Your task to perform on an android device: turn notification dots on Image 0: 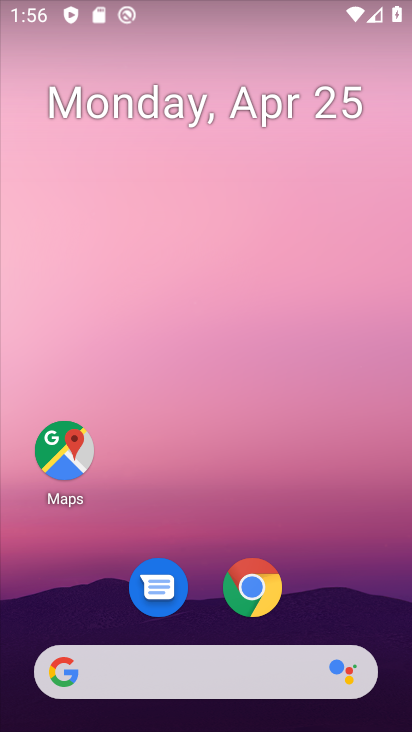
Step 0: drag from (341, 548) to (319, 69)
Your task to perform on an android device: turn notification dots on Image 1: 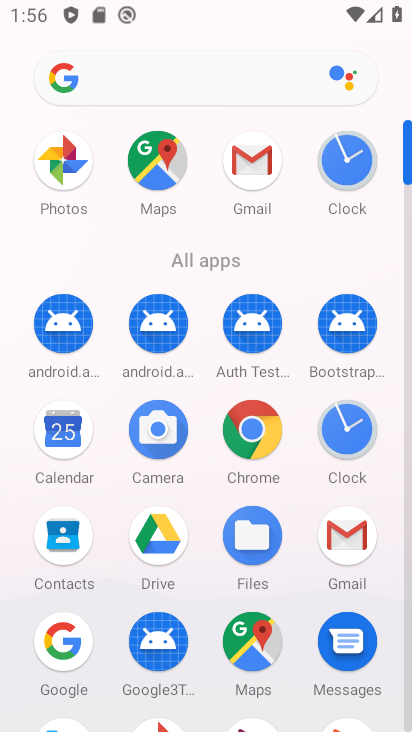
Step 1: drag from (214, 576) to (233, 228)
Your task to perform on an android device: turn notification dots on Image 2: 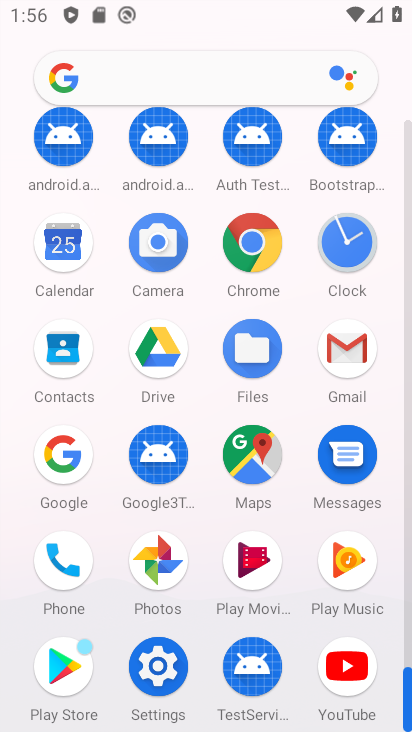
Step 2: click (167, 660)
Your task to perform on an android device: turn notification dots on Image 3: 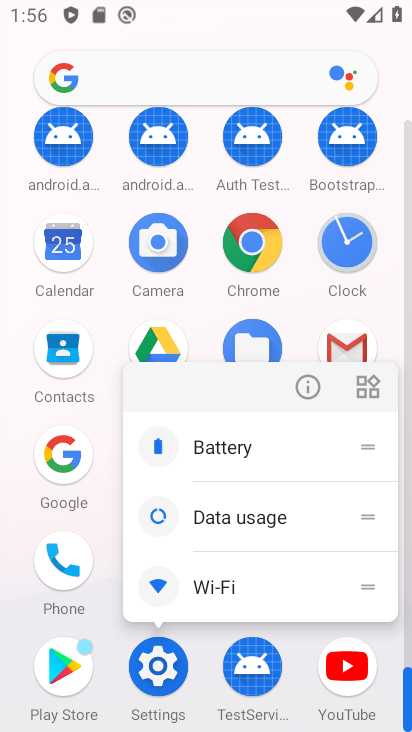
Step 3: click (160, 683)
Your task to perform on an android device: turn notification dots on Image 4: 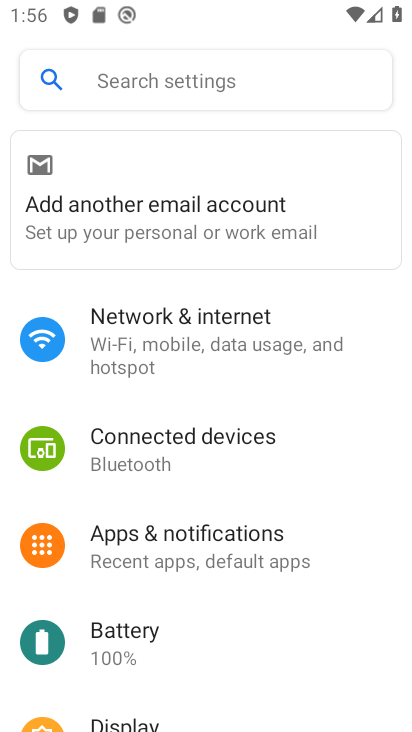
Step 4: click (232, 565)
Your task to perform on an android device: turn notification dots on Image 5: 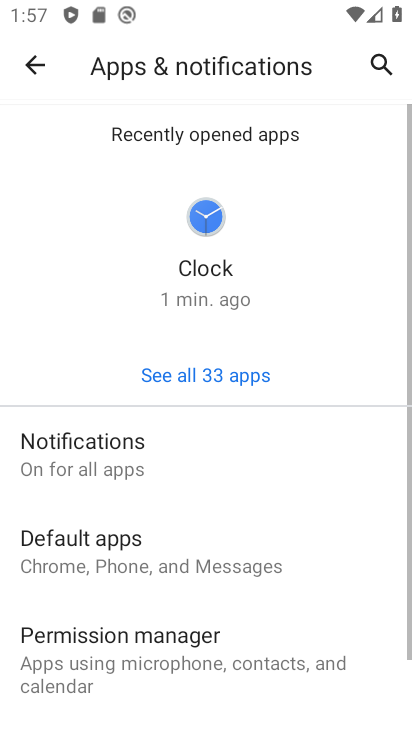
Step 5: click (91, 449)
Your task to perform on an android device: turn notification dots on Image 6: 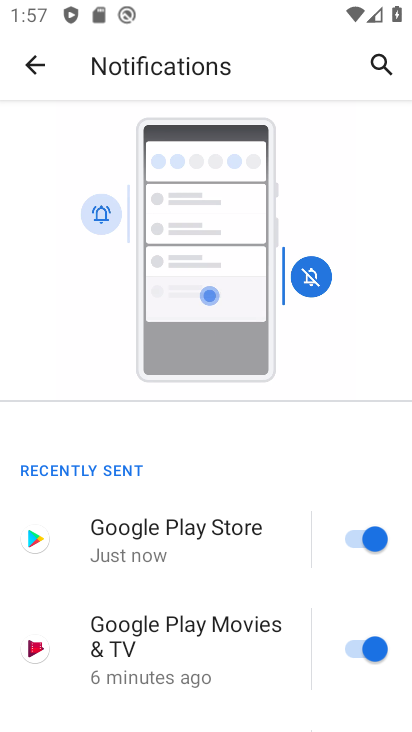
Step 6: drag from (243, 581) to (300, 83)
Your task to perform on an android device: turn notification dots on Image 7: 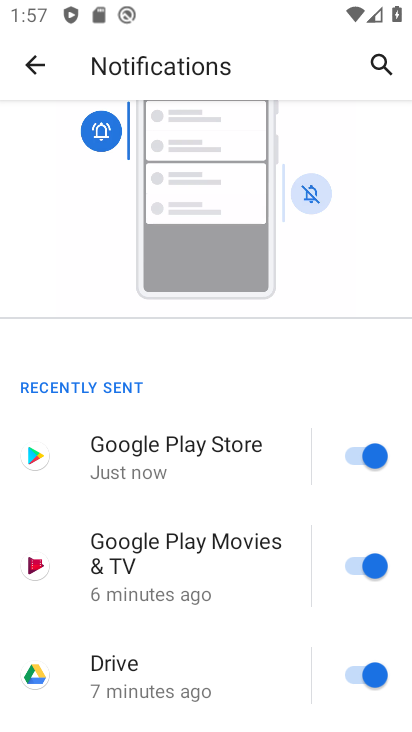
Step 7: drag from (237, 480) to (325, 115)
Your task to perform on an android device: turn notification dots on Image 8: 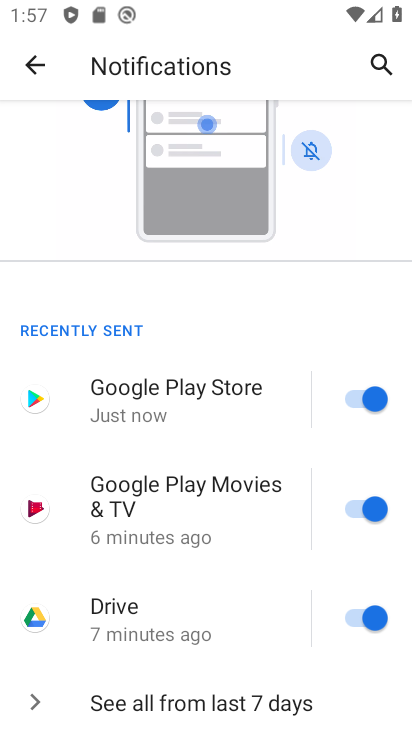
Step 8: drag from (217, 586) to (271, 127)
Your task to perform on an android device: turn notification dots on Image 9: 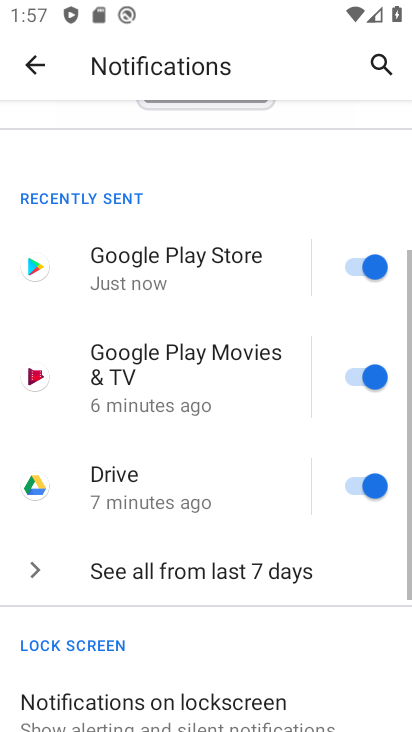
Step 9: drag from (203, 599) to (241, 178)
Your task to perform on an android device: turn notification dots on Image 10: 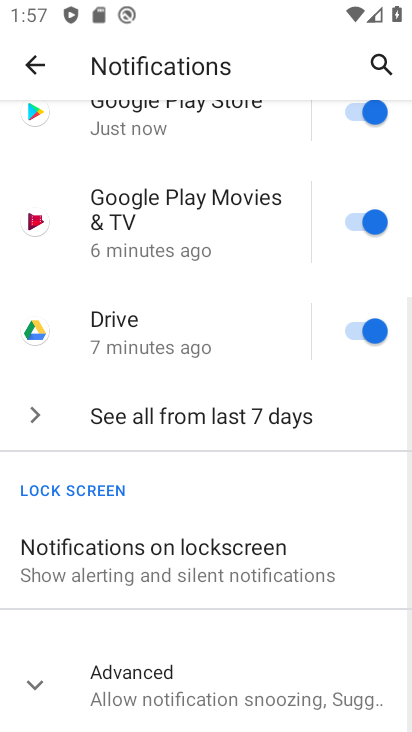
Step 10: drag from (220, 561) to (259, 250)
Your task to perform on an android device: turn notification dots on Image 11: 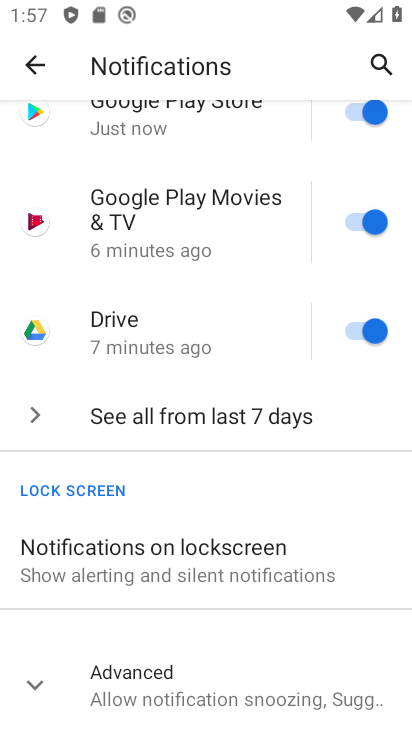
Step 11: click (163, 666)
Your task to perform on an android device: turn notification dots on Image 12: 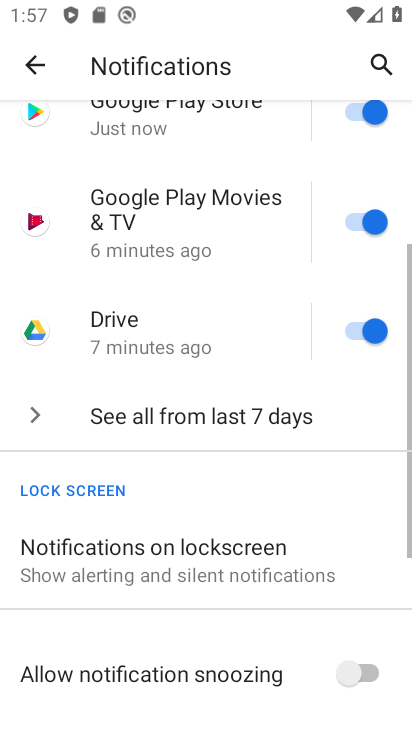
Step 12: task complete